Your task to perform on an android device: uninstall "Viber Messenger" Image 0: 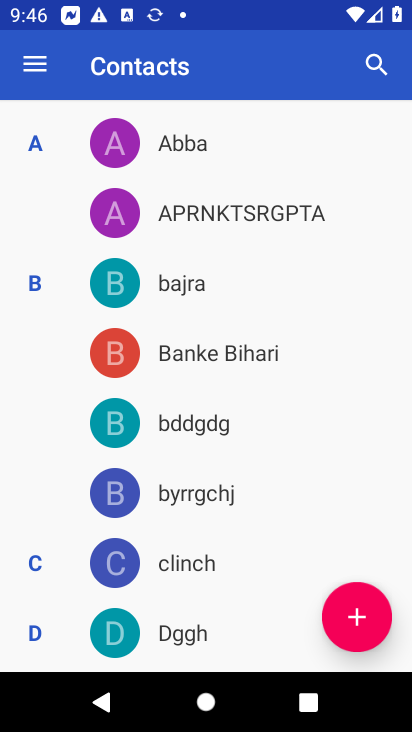
Step 0: press home button
Your task to perform on an android device: uninstall "Viber Messenger" Image 1: 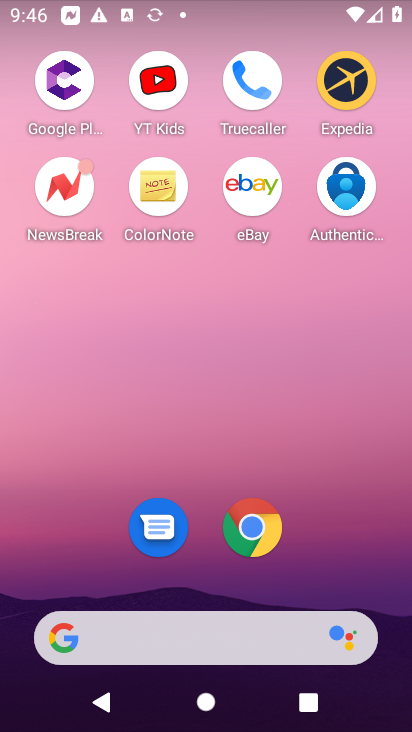
Step 1: drag from (170, 566) to (183, 121)
Your task to perform on an android device: uninstall "Viber Messenger" Image 2: 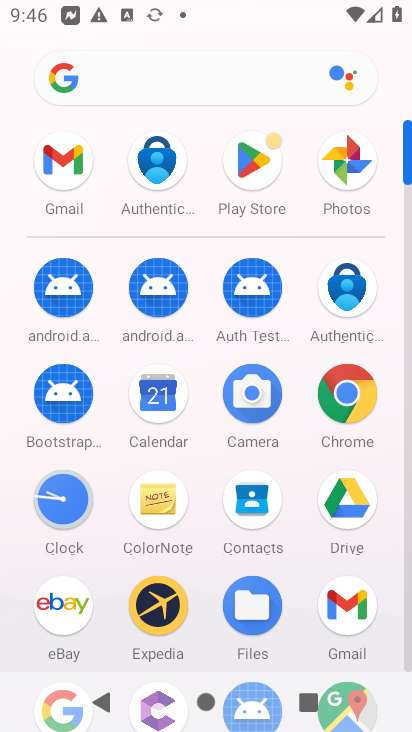
Step 2: click (250, 167)
Your task to perform on an android device: uninstall "Viber Messenger" Image 3: 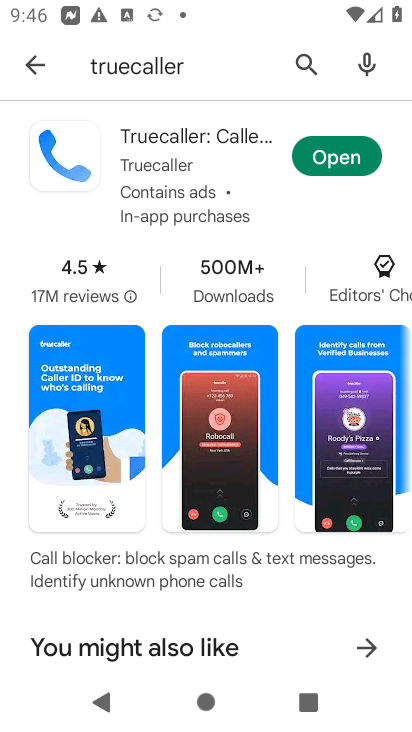
Step 3: click (157, 63)
Your task to perform on an android device: uninstall "Viber Messenger" Image 4: 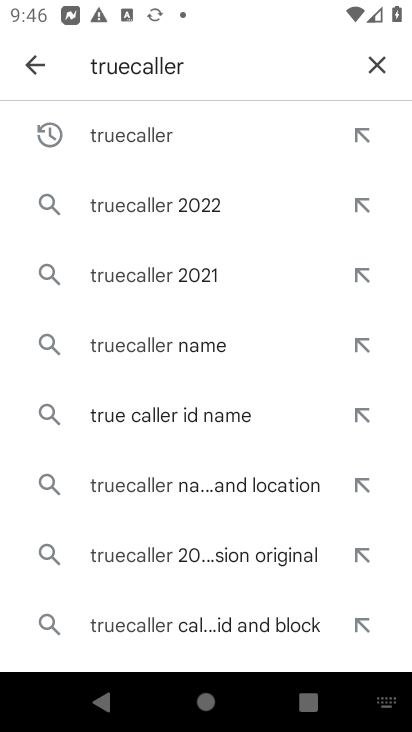
Step 4: click (380, 52)
Your task to perform on an android device: uninstall "Viber Messenger" Image 5: 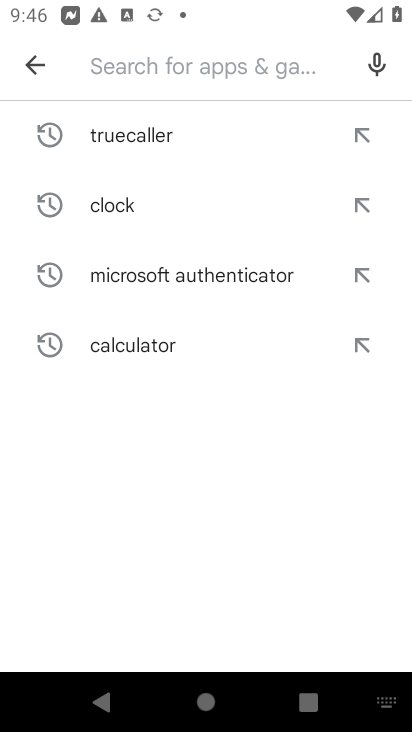
Step 5: type "Viber Messenger"
Your task to perform on an android device: uninstall "Viber Messenger" Image 6: 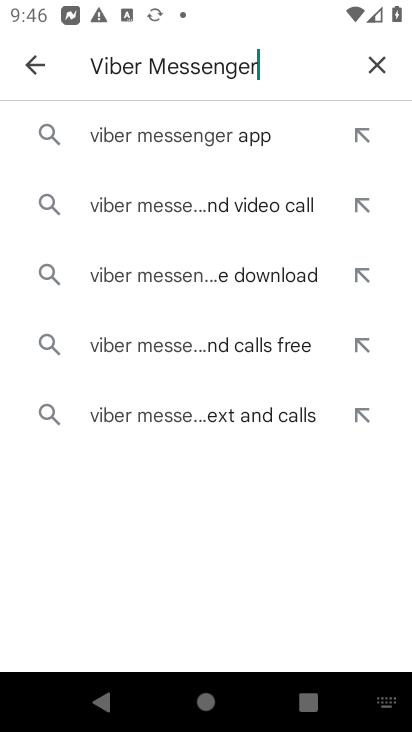
Step 6: click (152, 112)
Your task to perform on an android device: uninstall "Viber Messenger" Image 7: 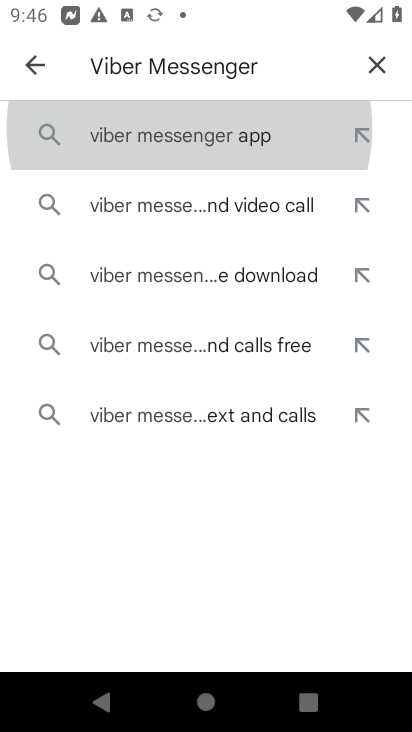
Step 7: click (160, 143)
Your task to perform on an android device: uninstall "Viber Messenger" Image 8: 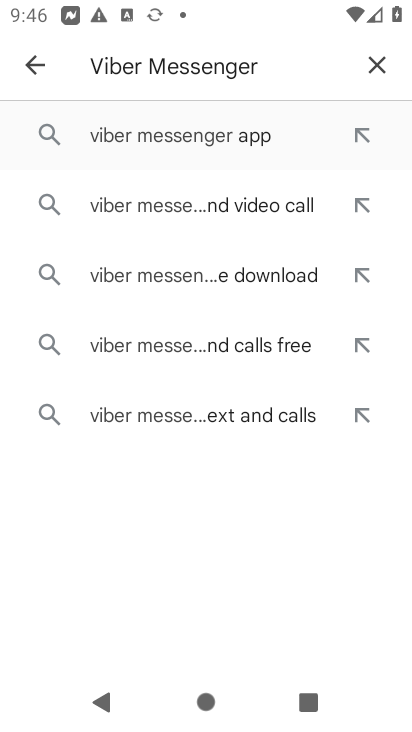
Step 8: click (166, 121)
Your task to perform on an android device: uninstall "Viber Messenger" Image 9: 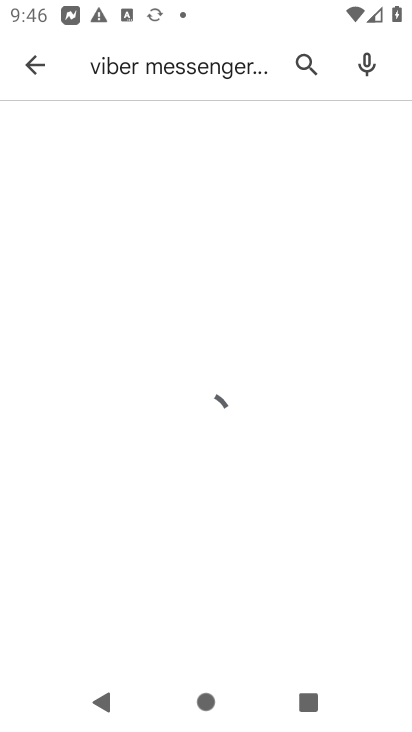
Step 9: click (167, 119)
Your task to perform on an android device: uninstall "Viber Messenger" Image 10: 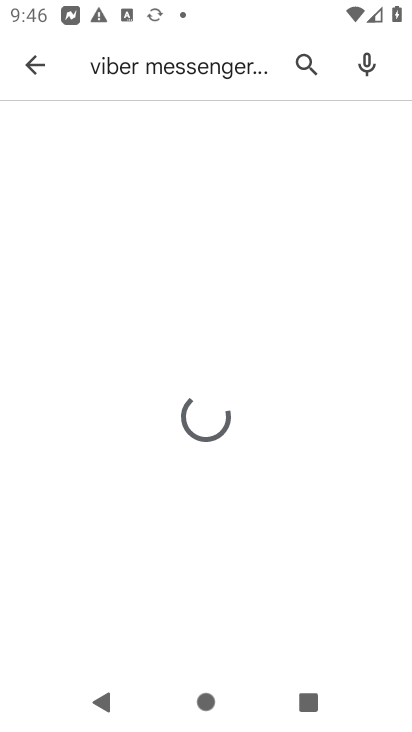
Step 10: click (168, 119)
Your task to perform on an android device: uninstall "Viber Messenger" Image 11: 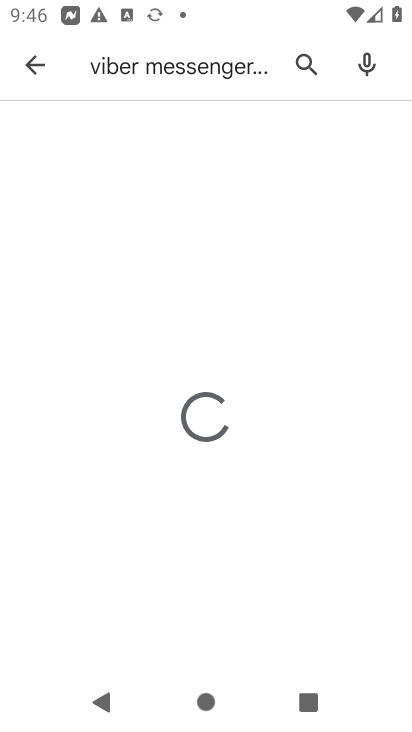
Step 11: click (168, 119)
Your task to perform on an android device: uninstall "Viber Messenger" Image 12: 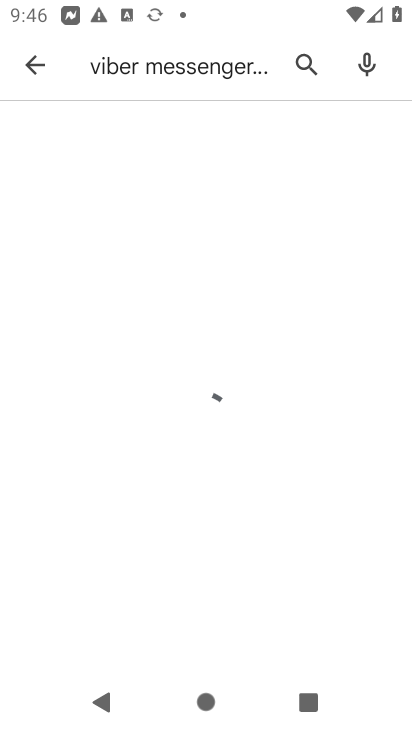
Step 12: click (168, 119)
Your task to perform on an android device: uninstall "Viber Messenger" Image 13: 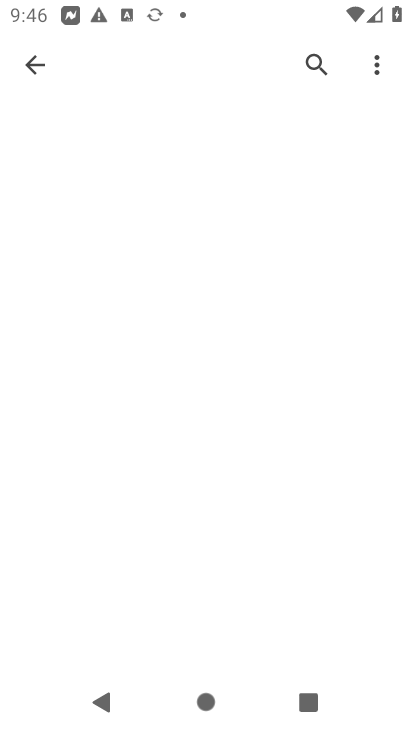
Step 13: click (163, 242)
Your task to perform on an android device: uninstall "Viber Messenger" Image 14: 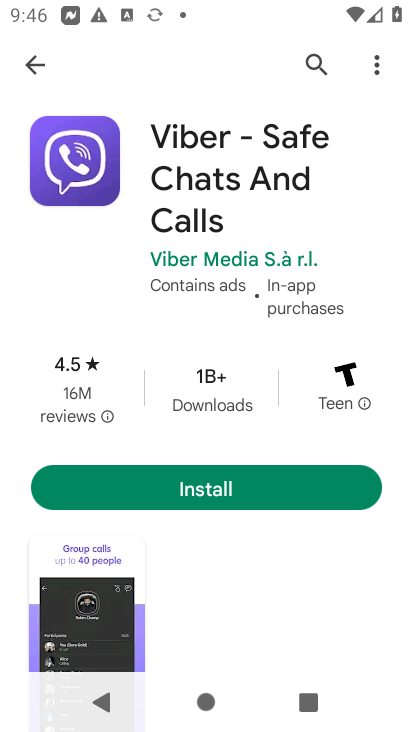
Step 14: click (163, 242)
Your task to perform on an android device: uninstall "Viber Messenger" Image 15: 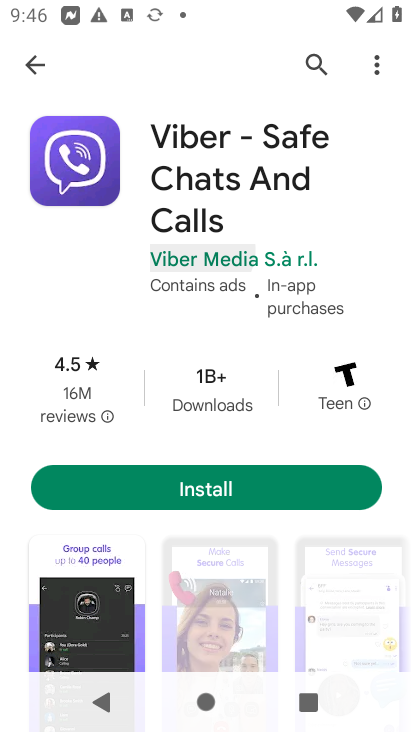
Step 15: click (163, 242)
Your task to perform on an android device: uninstall "Viber Messenger" Image 16: 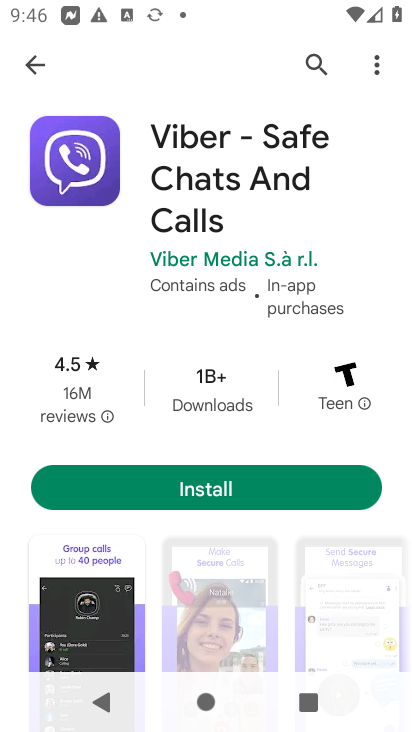
Step 16: click (163, 242)
Your task to perform on an android device: uninstall "Viber Messenger" Image 17: 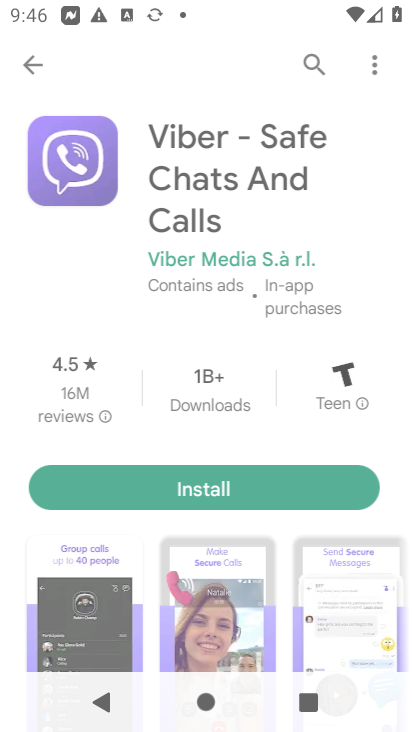
Step 17: click (163, 242)
Your task to perform on an android device: uninstall "Viber Messenger" Image 18: 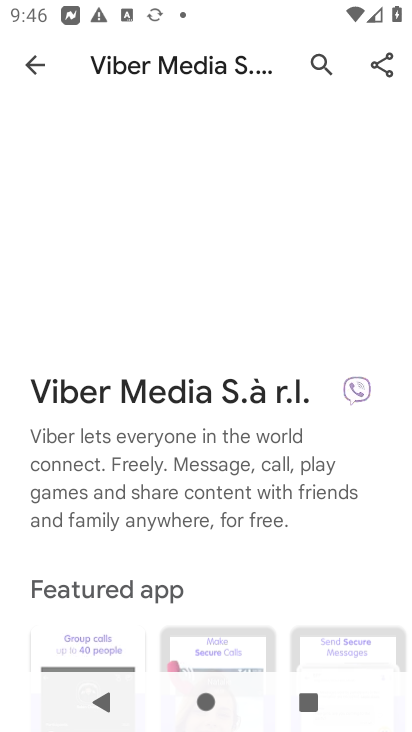
Step 18: click (163, 242)
Your task to perform on an android device: uninstall "Viber Messenger" Image 19: 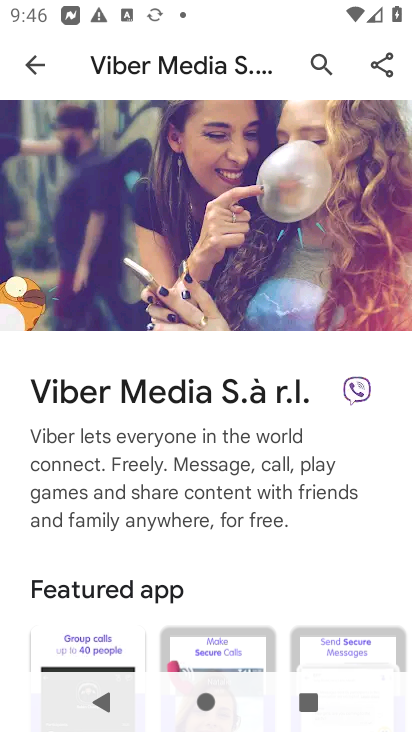
Step 19: click (163, 242)
Your task to perform on an android device: uninstall "Viber Messenger" Image 20: 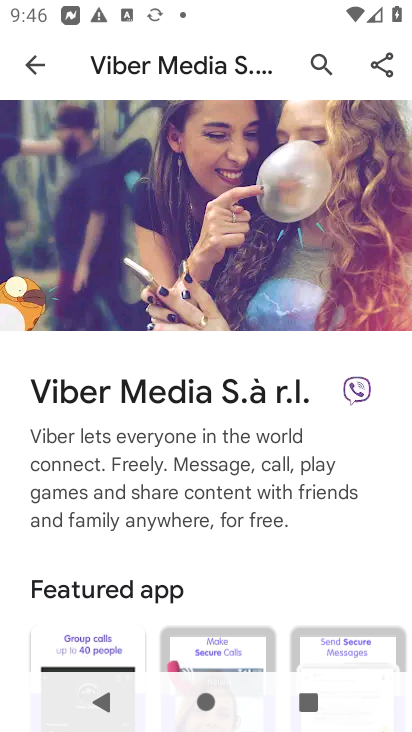
Step 20: click (163, 242)
Your task to perform on an android device: uninstall "Viber Messenger" Image 21: 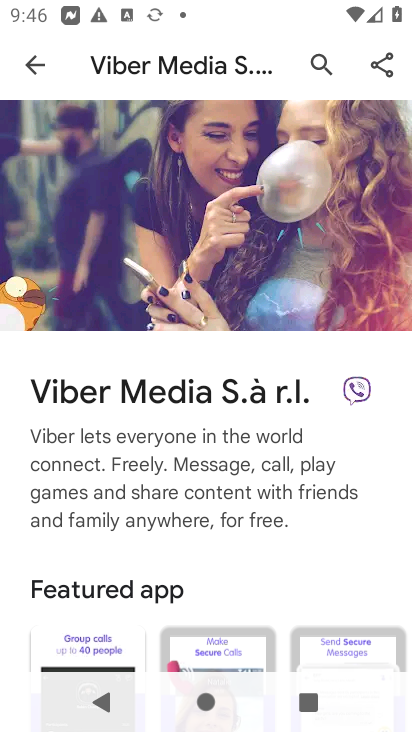
Step 21: click (163, 242)
Your task to perform on an android device: uninstall "Viber Messenger" Image 22: 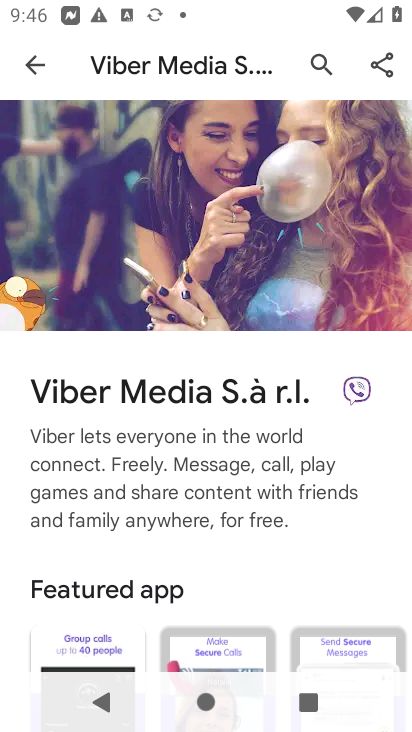
Step 22: click (163, 242)
Your task to perform on an android device: uninstall "Viber Messenger" Image 23: 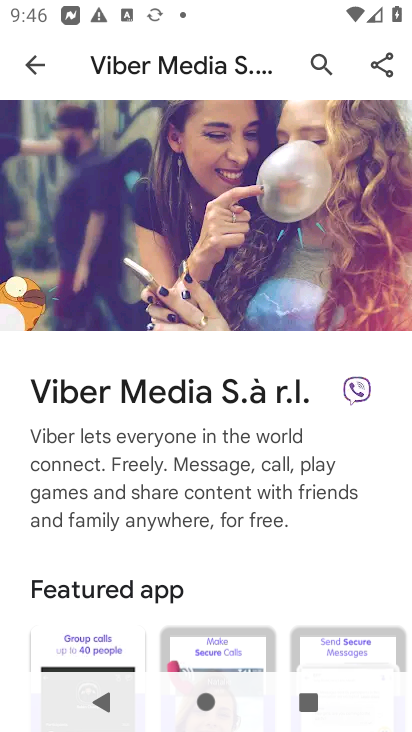
Step 23: click (163, 242)
Your task to perform on an android device: uninstall "Viber Messenger" Image 24: 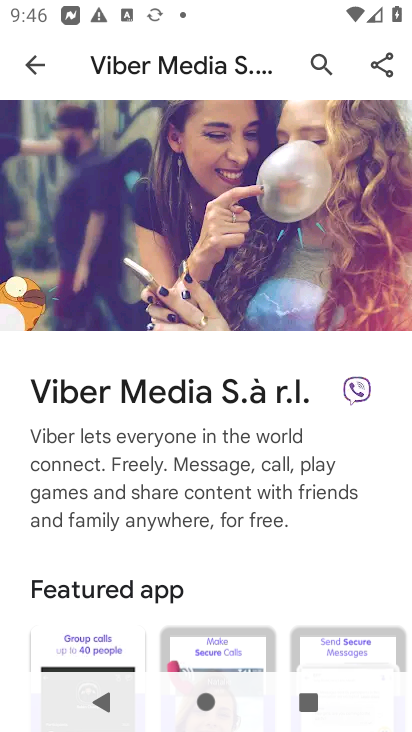
Step 24: drag from (113, 183) to (61, 116)
Your task to perform on an android device: uninstall "Viber Messenger" Image 25: 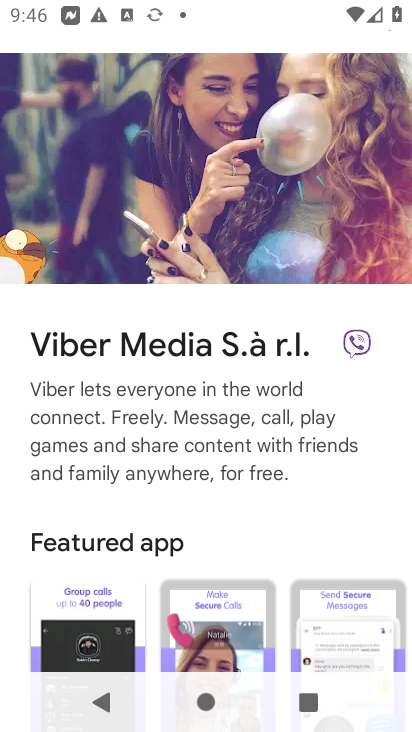
Step 25: click (35, 70)
Your task to perform on an android device: uninstall "Viber Messenger" Image 26: 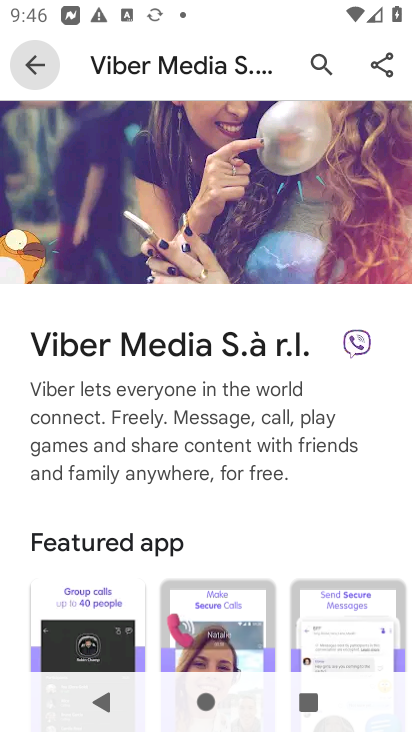
Step 26: click (39, 55)
Your task to perform on an android device: uninstall "Viber Messenger" Image 27: 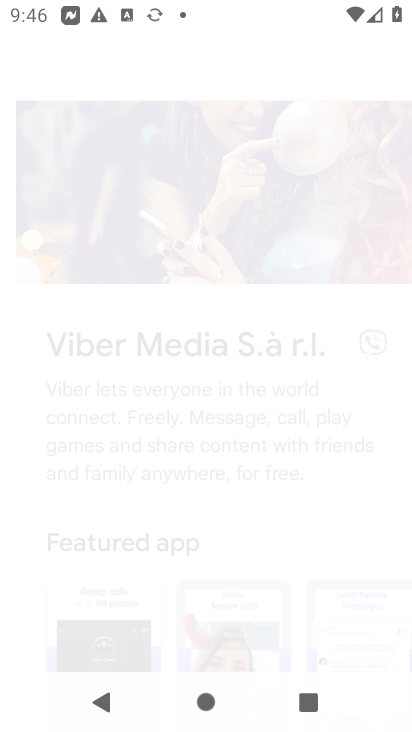
Step 27: click (39, 55)
Your task to perform on an android device: uninstall "Viber Messenger" Image 28: 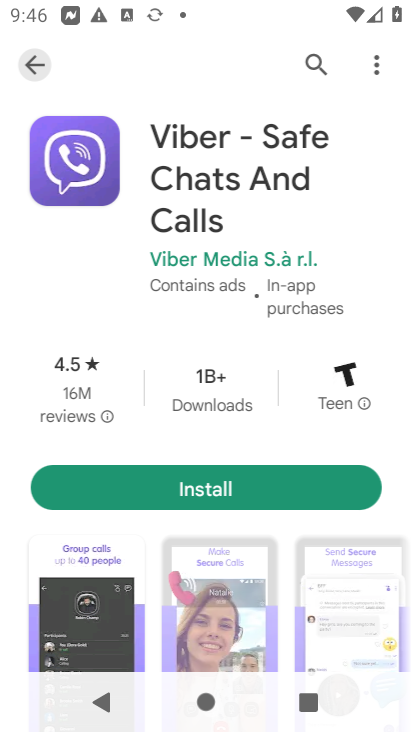
Step 28: click (79, 102)
Your task to perform on an android device: uninstall "Viber Messenger" Image 29: 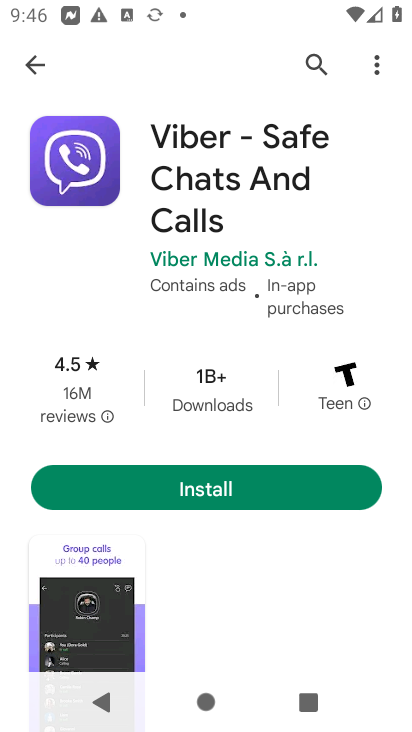
Step 29: click (230, 266)
Your task to perform on an android device: uninstall "Viber Messenger" Image 30: 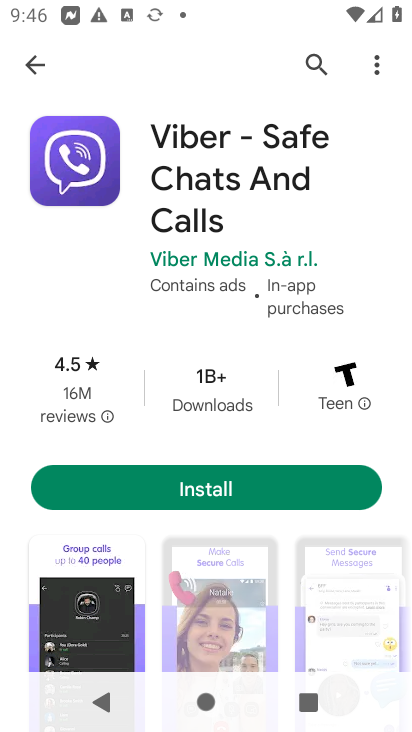
Step 30: click (313, 355)
Your task to perform on an android device: uninstall "Viber Messenger" Image 31: 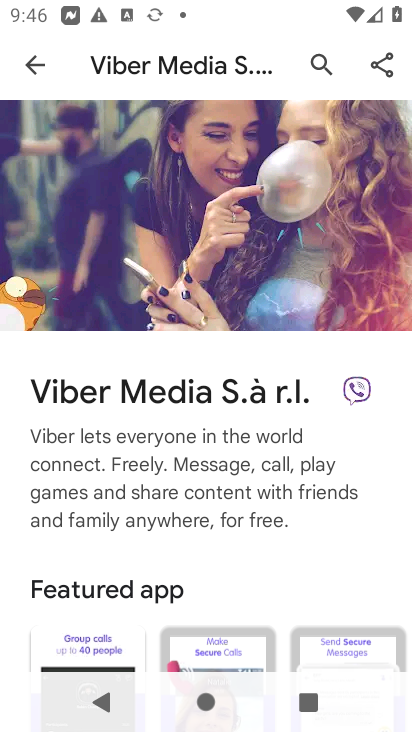
Step 31: click (193, 524)
Your task to perform on an android device: uninstall "Viber Messenger" Image 32: 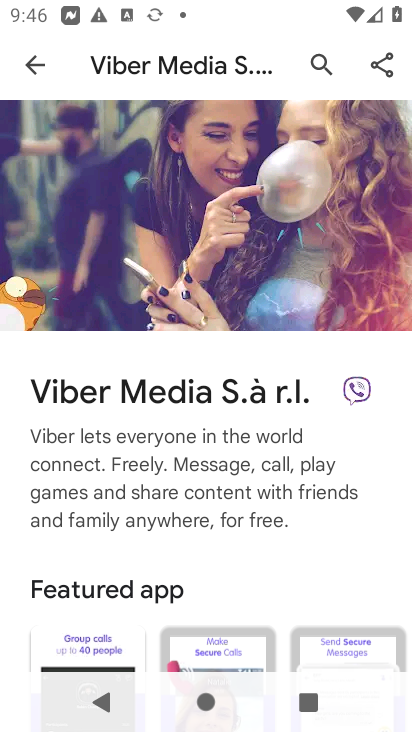
Step 32: click (193, 524)
Your task to perform on an android device: uninstall "Viber Messenger" Image 33: 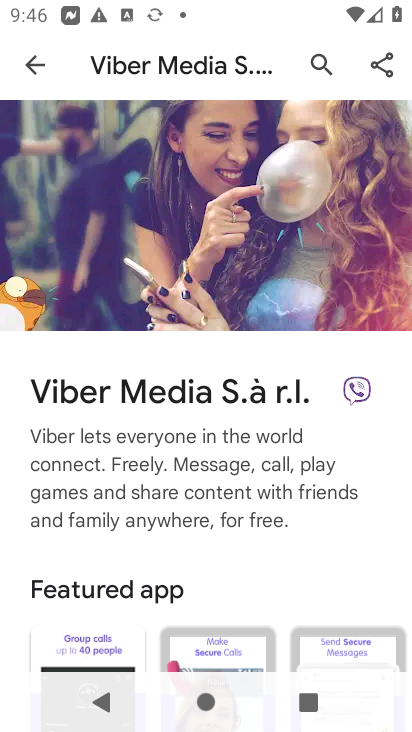
Step 33: click (193, 524)
Your task to perform on an android device: uninstall "Viber Messenger" Image 34: 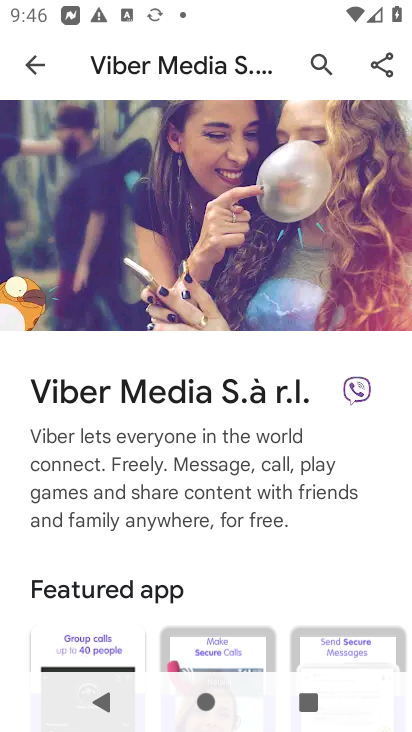
Step 34: click (38, 69)
Your task to perform on an android device: uninstall "Viber Messenger" Image 35: 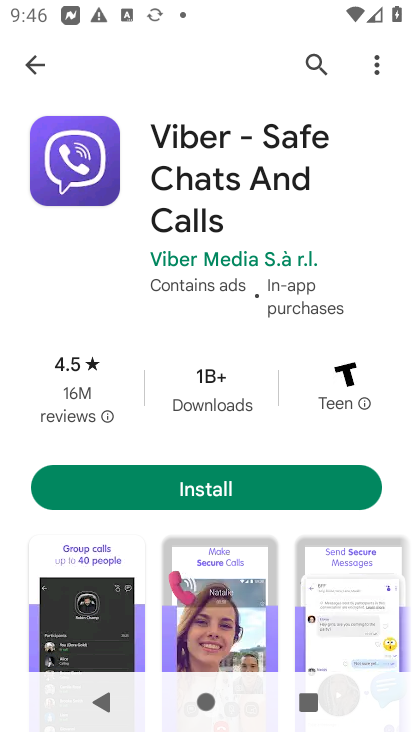
Step 35: task complete